Your task to perform on an android device: add a contact Image 0: 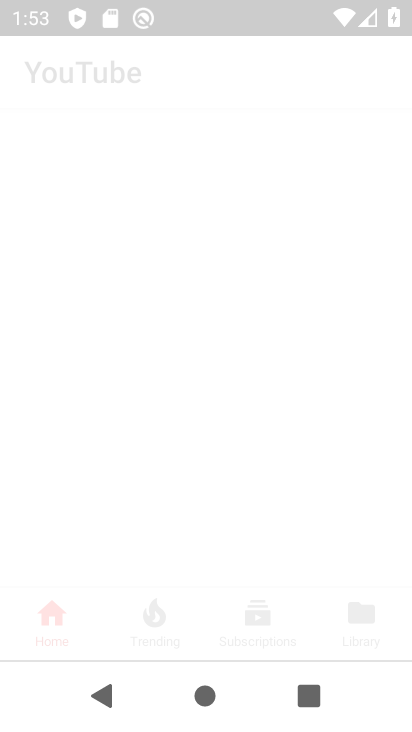
Step 0: drag from (126, 549) to (344, 51)
Your task to perform on an android device: add a contact Image 1: 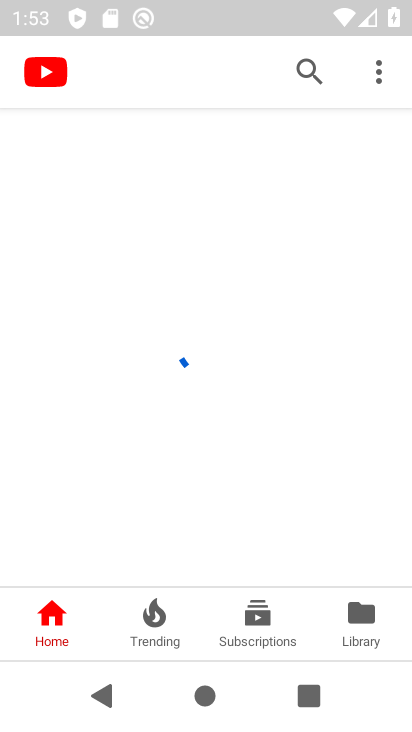
Step 1: press home button
Your task to perform on an android device: add a contact Image 2: 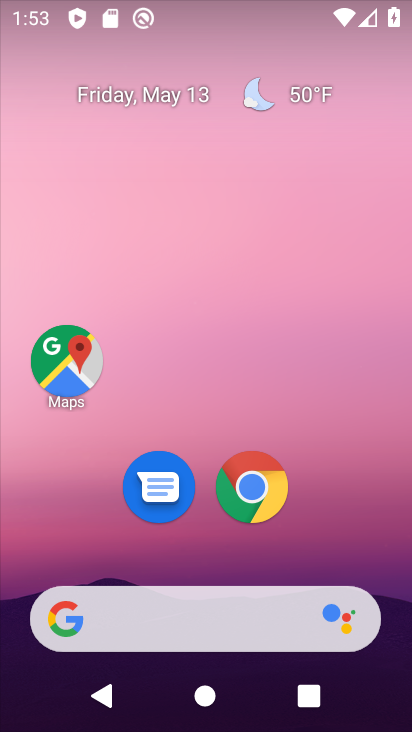
Step 2: drag from (66, 579) to (201, 89)
Your task to perform on an android device: add a contact Image 3: 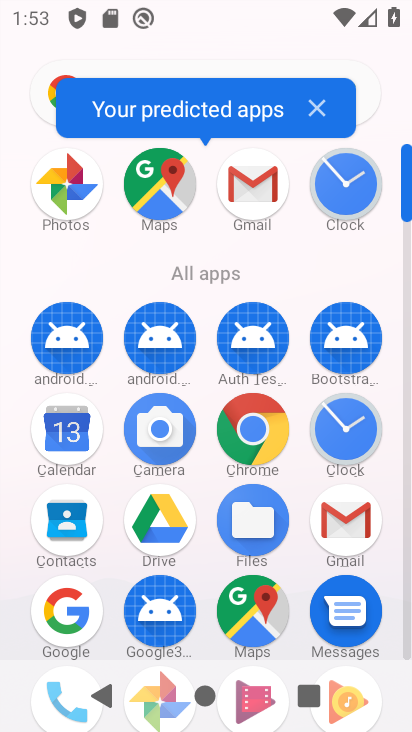
Step 3: click (60, 529)
Your task to perform on an android device: add a contact Image 4: 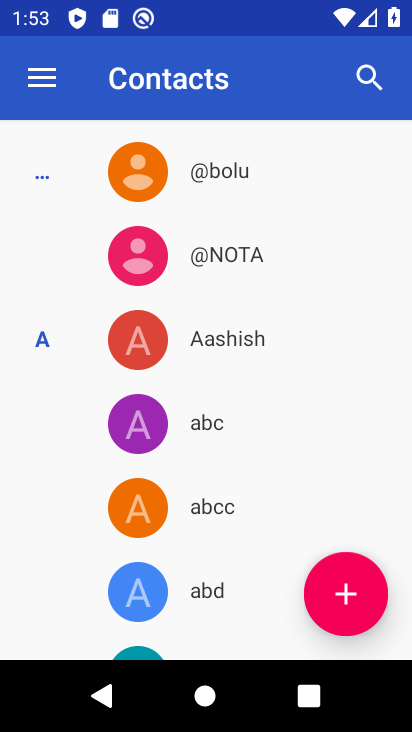
Step 4: click (366, 598)
Your task to perform on an android device: add a contact Image 5: 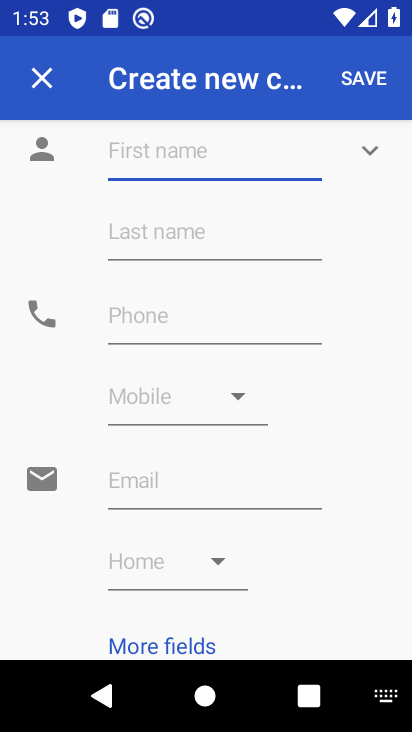
Step 5: type "justinn"
Your task to perform on an android device: add a contact Image 6: 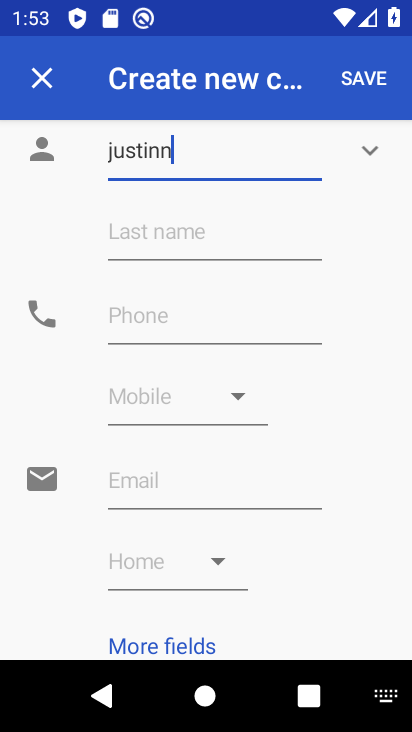
Step 6: click (104, 324)
Your task to perform on an android device: add a contact Image 7: 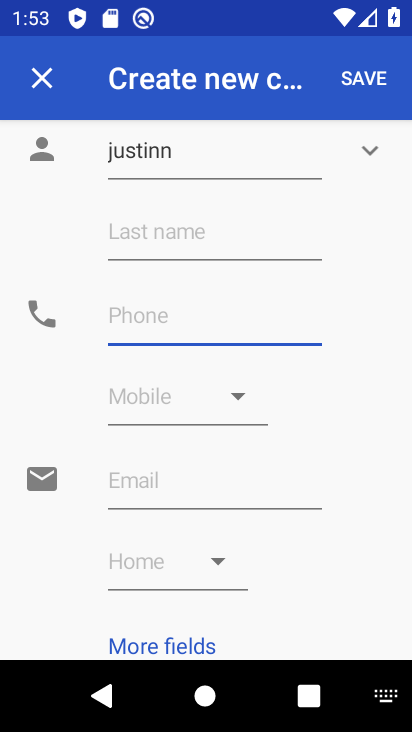
Step 7: type "23231211"
Your task to perform on an android device: add a contact Image 8: 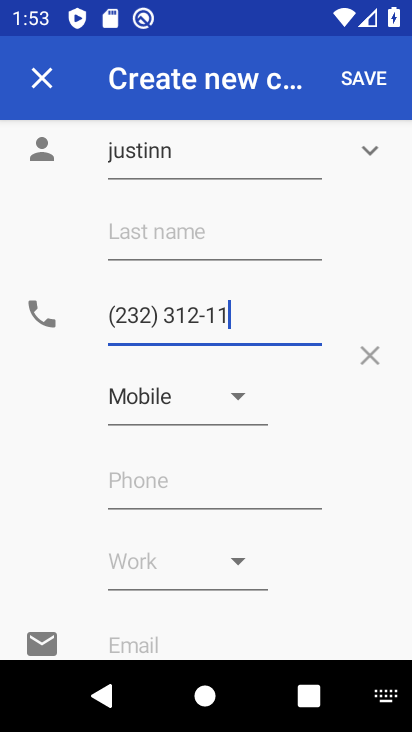
Step 8: type "23"
Your task to perform on an android device: add a contact Image 9: 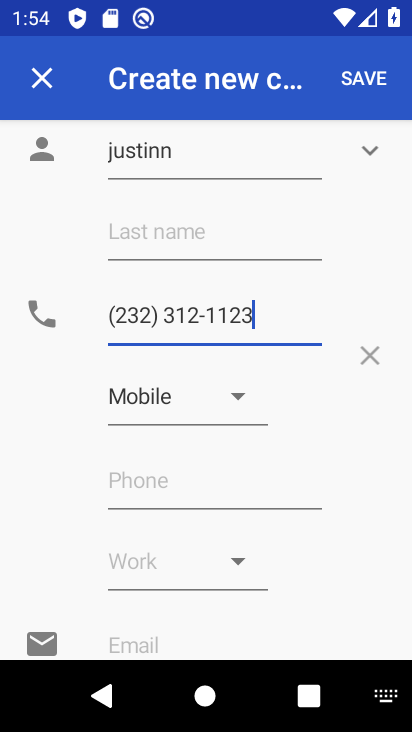
Step 9: click (365, 79)
Your task to perform on an android device: add a contact Image 10: 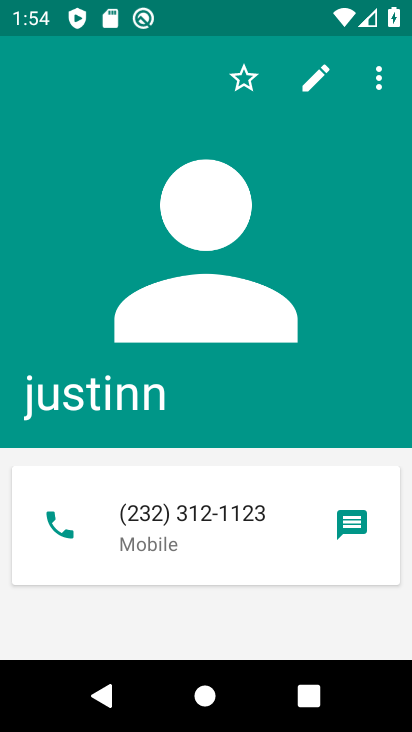
Step 10: task complete